Your task to perform on an android device: toggle show notifications on the lock screen Image 0: 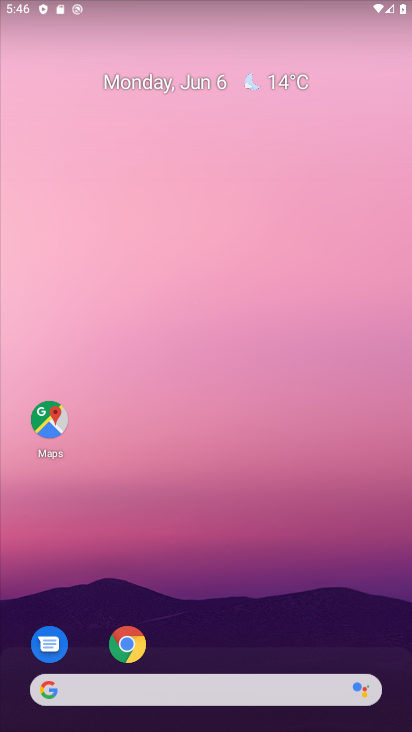
Step 0: drag from (130, 29) to (222, 18)
Your task to perform on an android device: toggle show notifications on the lock screen Image 1: 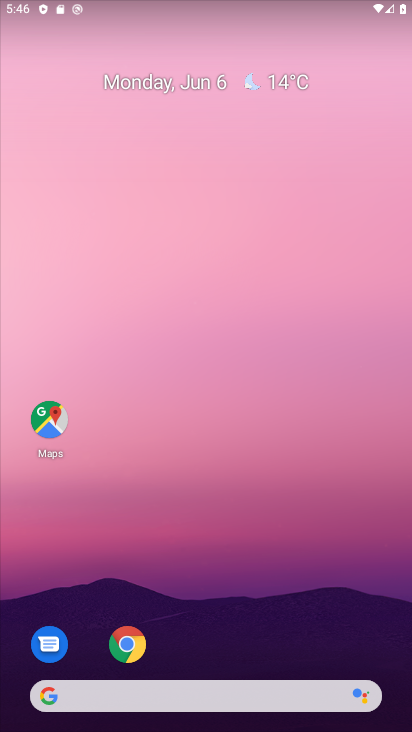
Step 1: drag from (215, 616) to (157, 118)
Your task to perform on an android device: toggle show notifications on the lock screen Image 2: 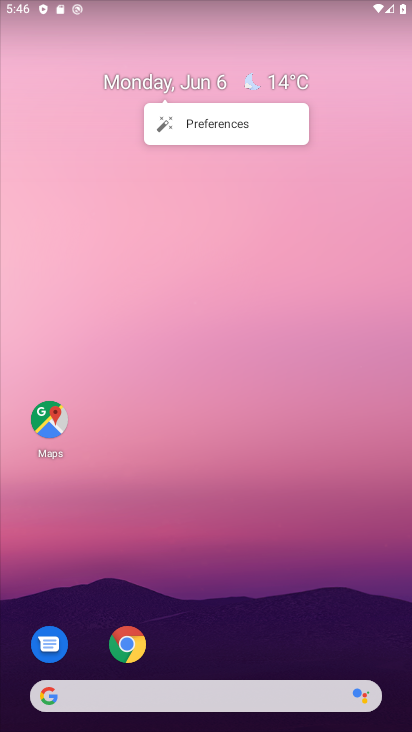
Step 2: drag from (156, 544) to (106, 104)
Your task to perform on an android device: toggle show notifications on the lock screen Image 3: 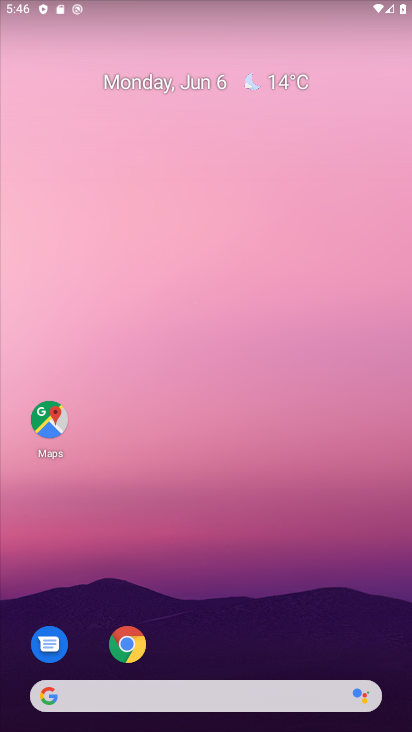
Step 3: drag from (172, 515) to (124, 41)
Your task to perform on an android device: toggle show notifications on the lock screen Image 4: 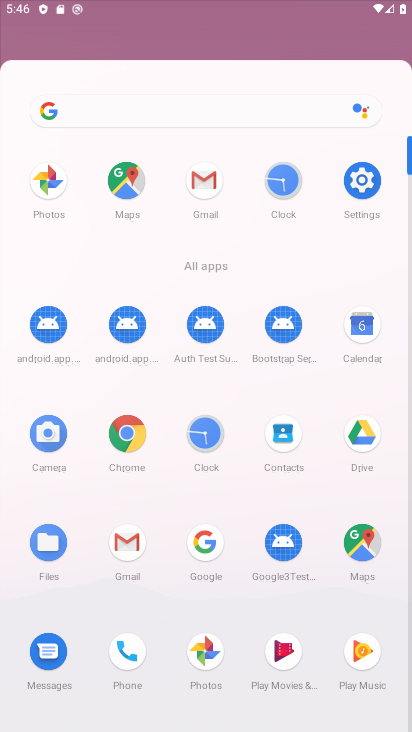
Step 4: drag from (308, 474) to (132, 39)
Your task to perform on an android device: toggle show notifications on the lock screen Image 5: 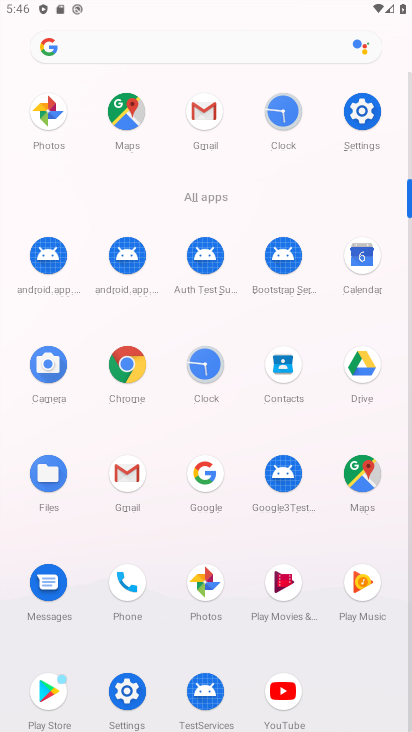
Step 5: click (343, 113)
Your task to perform on an android device: toggle show notifications on the lock screen Image 6: 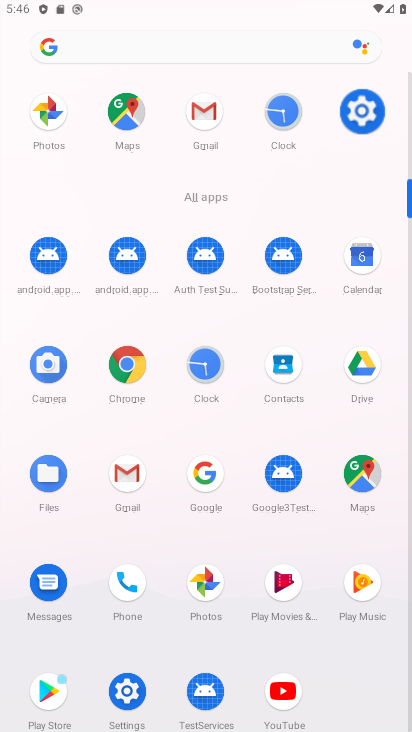
Step 6: click (353, 118)
Your task to perform on an android device: toggle show notifications on the lock screen Image 7: 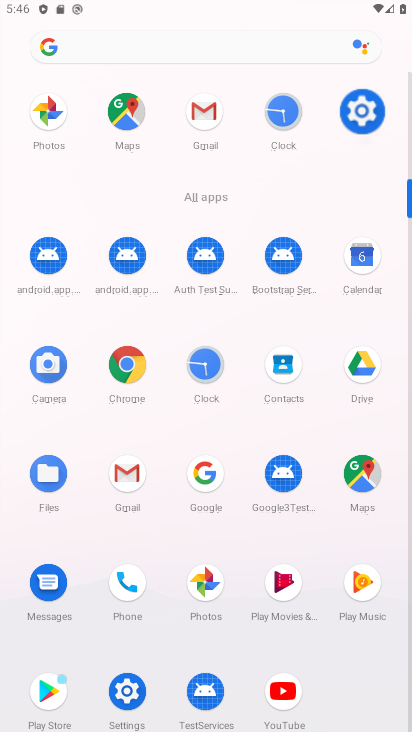
Step 7: click (358, 126)
Your task to perform on an android device: toggle show notifications on the lock screen Image 8: 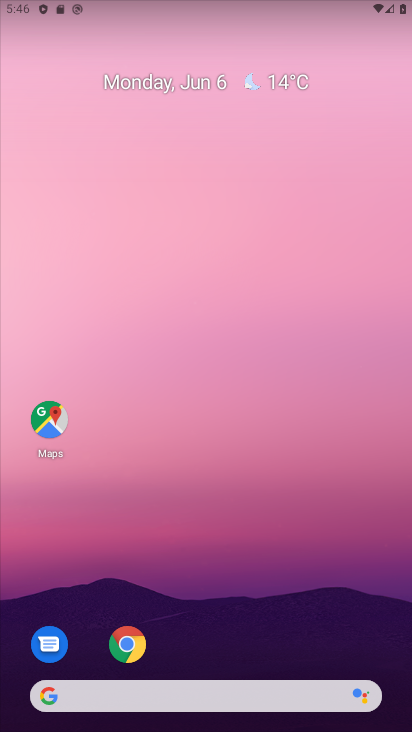
Step 8: click (352, 113)
Your task to perform on an android device: toggle show notifications on the lock screen Image 9: 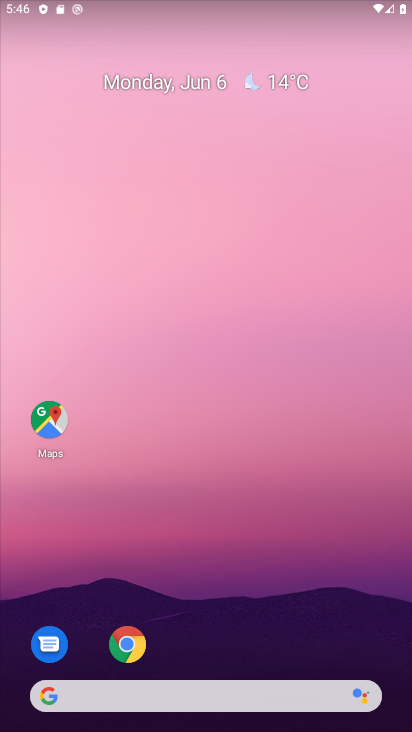
Step 9: click (353, 112)
Your task to perform on an android device: toggle show notifications on the lock screen Image 10: 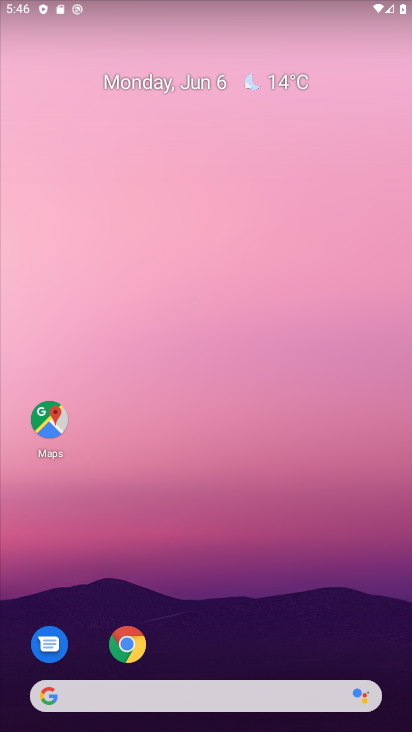
Step 10: drag from (204, 524) to (119, 84)
Your task to perform on an android device: toggle show notifications on the lock screen Image 11: 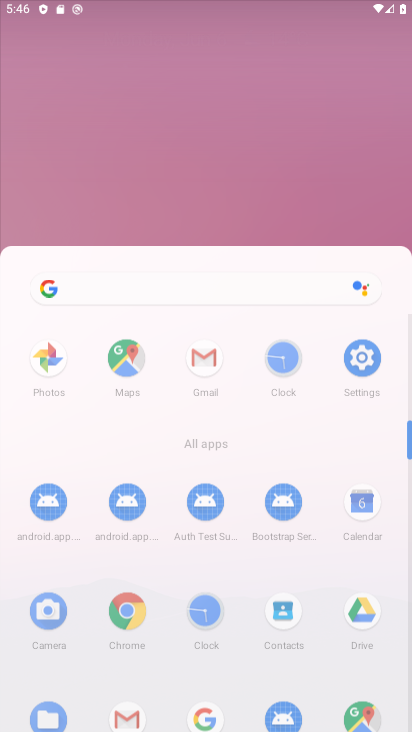
Step 11: drag from (205, 459) to (136, 29)
Your task to perform on an android device: toggle show notifications on the lock screen Image 12: 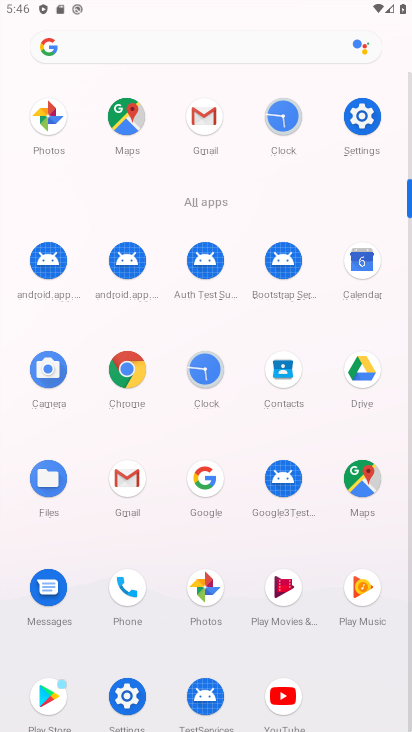
Step 12: click (362, 137)
Your task to perform on an android device: toggle show notifications on the lock screen Image 13: 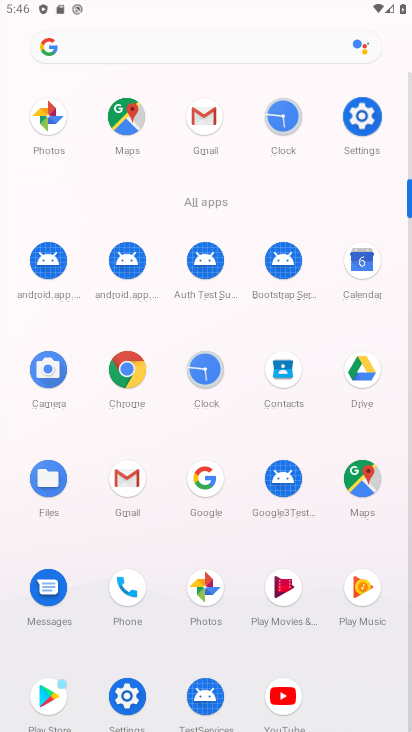
Step 13: click (362, 134)
Your task to perform on an android device: toggle show notifications on the lock screen Image 14: 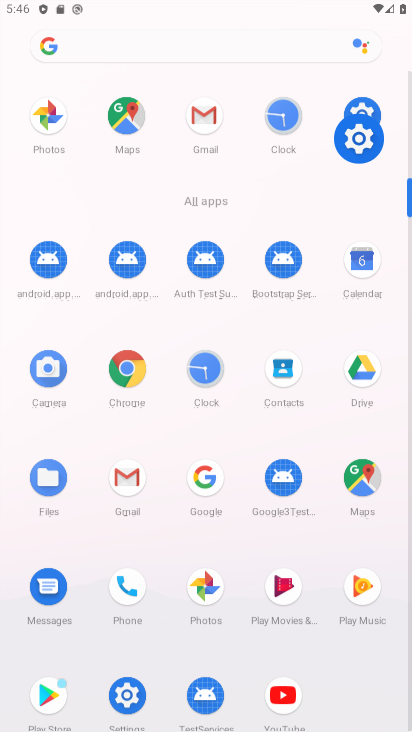
Step 14: click (353, 121)
Your task to perform on an android device: toggle show notifications on the lock screen Image 15: 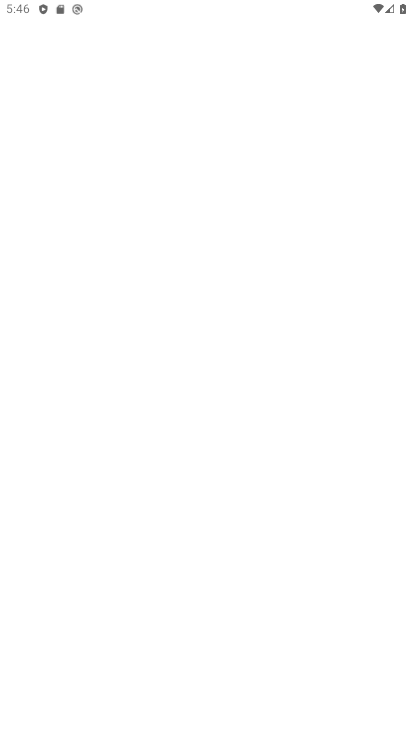
Step 15: click (367, 113)
Your task to perform on an android device: toggle show notifications on the lock screen Image 16: 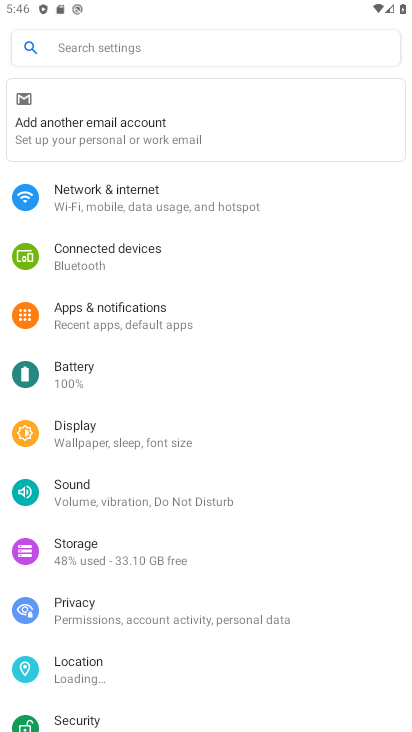
Step 16: click (97, 308)
Your task to perform on an android device: toggle show notifications on the lock screen Image 17: 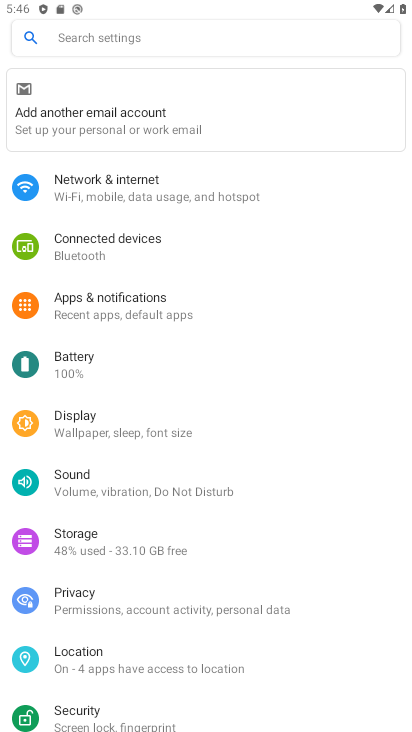
Step 17: click (120, 316)
Your task to perform on an android device: toggle show notifications on the lock screen Image 18: 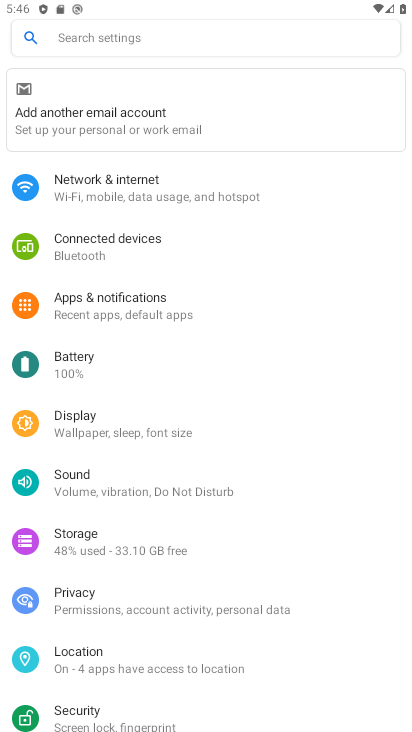
Step 18: click (128, 317)
Your task to perform on an android device: toggle show notifications on the lock screen Image 19: 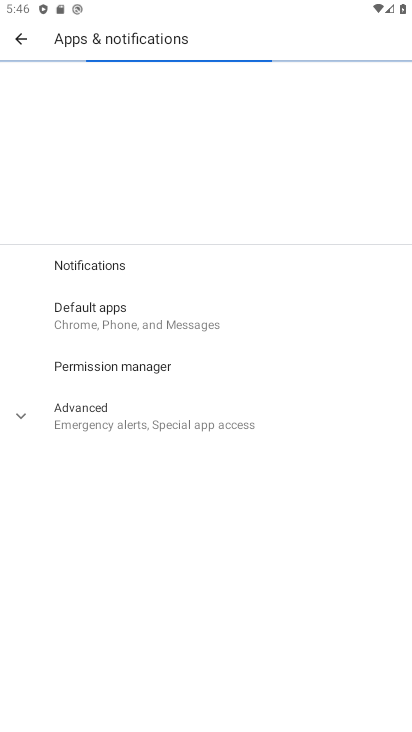
Step 19: click (121, 311)
Your task to perform on an android device: toggle show notifications on the lock screen Image 20: 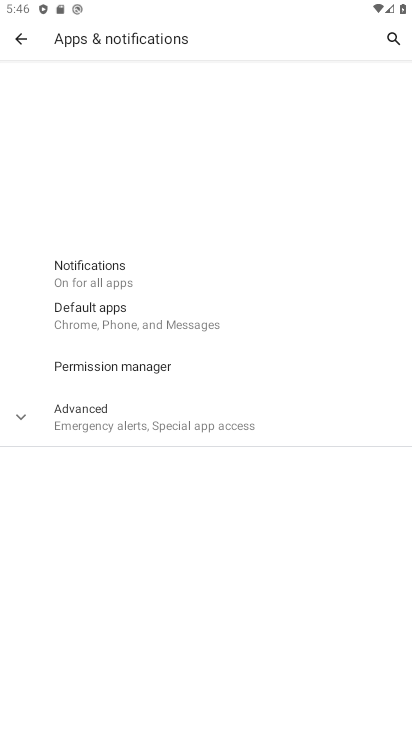
Step 20: click (121, 309)
Your task to perform on an android device: toggle show notifications on the lock screen Image 21: 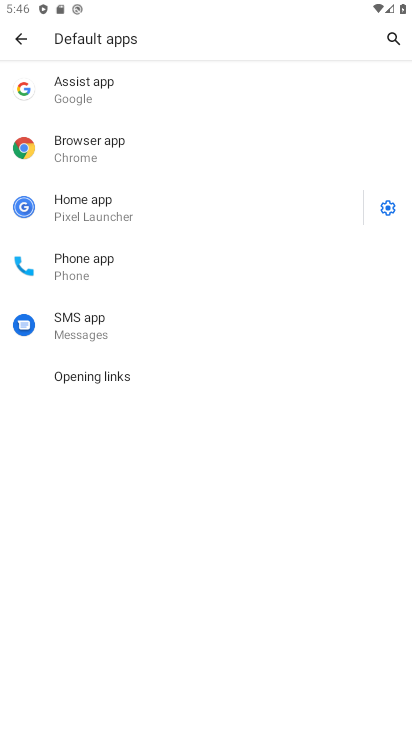
Step 21: click (19, 35)
Your task to perform on an android device: toggle show notifications on the lock screen Image 22: 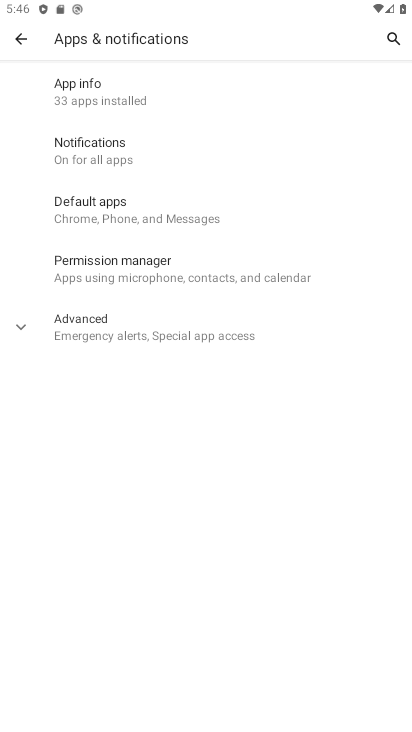
Step 22: click (82, 147)
Your task to perform on an android device: toggle show notifications on the lock screen Image 23: 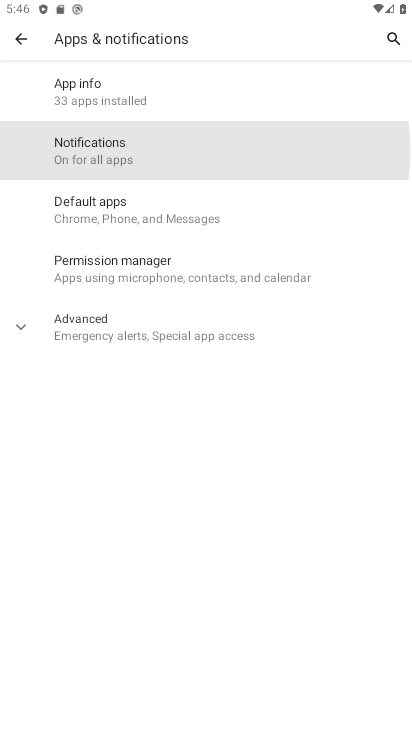
Step 23: click (82, 147)
Your task to perform on an android device: toggle show notifications on the lock screen Image 24: 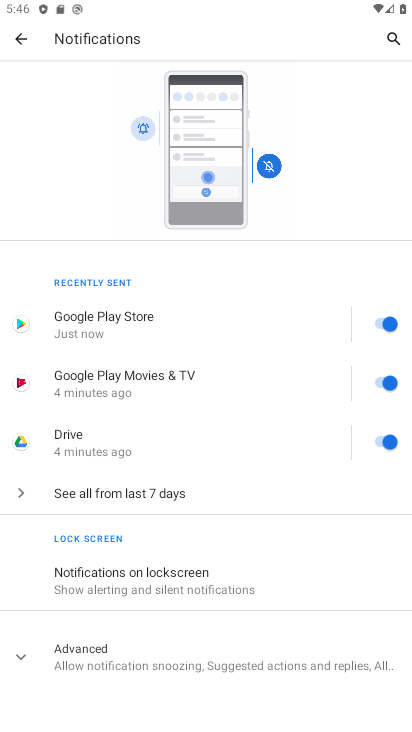
Step 24: drag from (224, 354) to (194, 100)
Your task to perform on an android device: toggle show notifications on the lock screen Image 25: 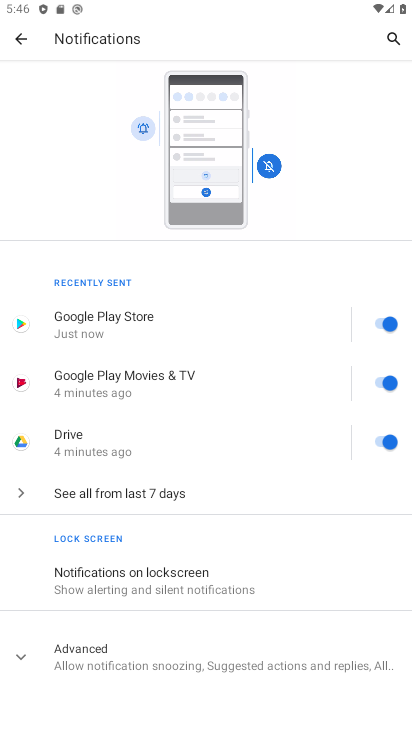
Step 25: drag from (247, 515) to (227, 230)
Your task to perform on an android device: toggle show notifications on the lock screen Image 26: 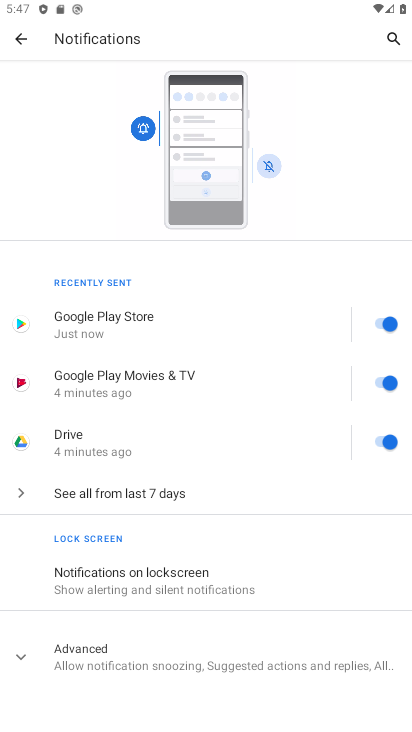
Step 26: click (90, 580)
Your task to perform on an android device: toggle show notifications on the lock screen Image 27: 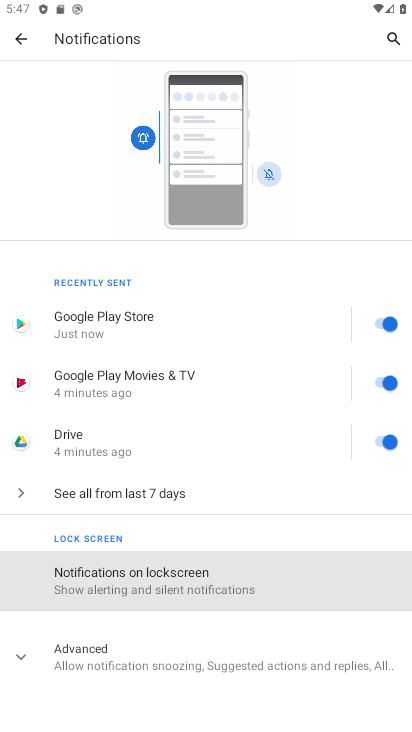
Step 27: click (88, 577)
Your task to perform on an android device: toggle show notifications on the lock screen Image 28: 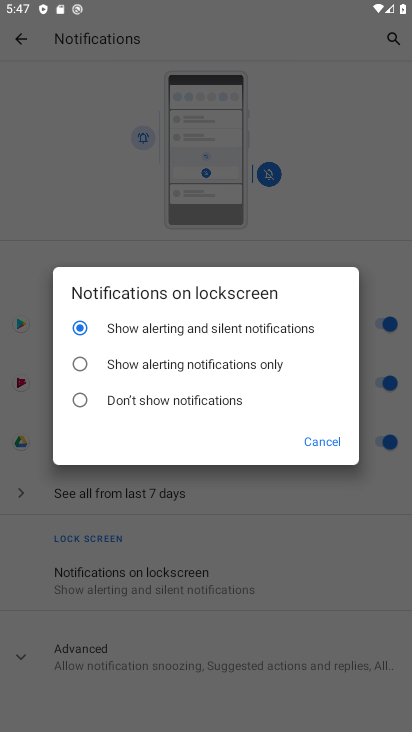
Step 28: task complete